Your task to perform on an android device: Go to CNN.com Image 0: 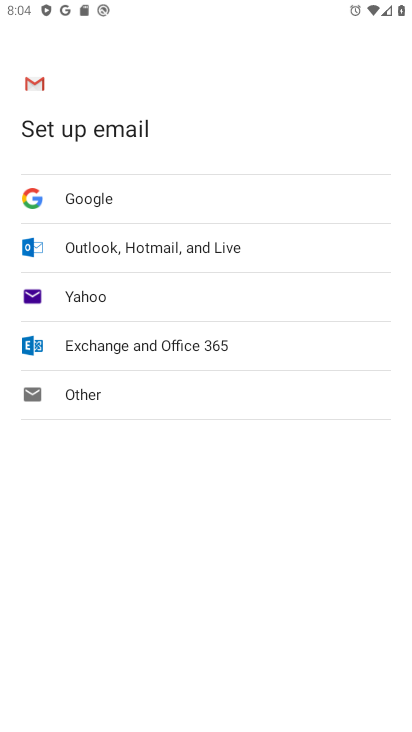
Step 0: press home button
Your task to perform on an android device: Go to CNN.com Image 1: 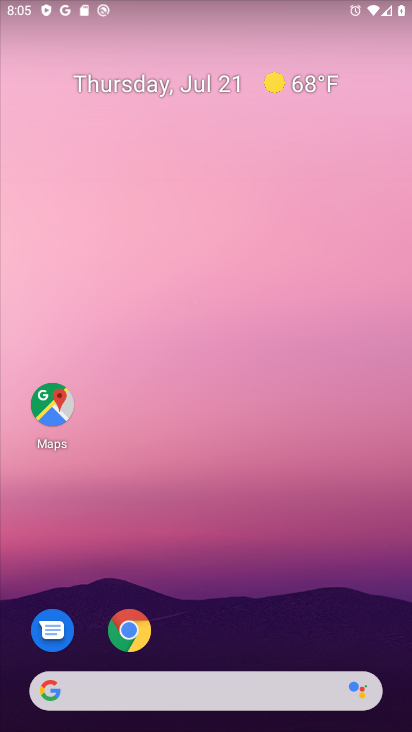
Step 1: drag from (310, 545) to (6, 205)
Your task to perform on an android device: Go to CNN.com Image 2: 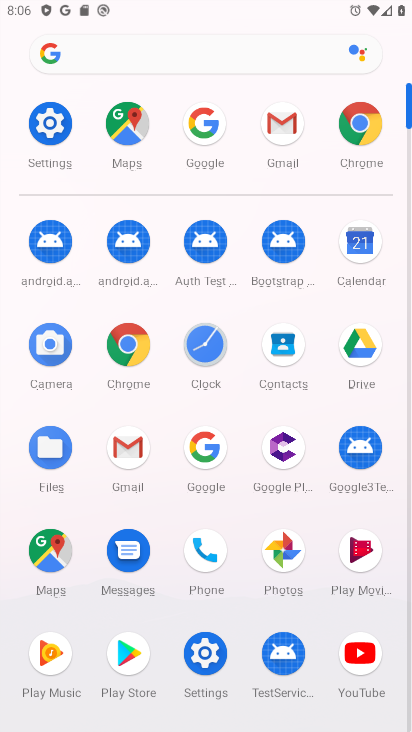
Step 2: click (367, 126)
Your task to perform on an android device: Go to CNN.com Image 3: 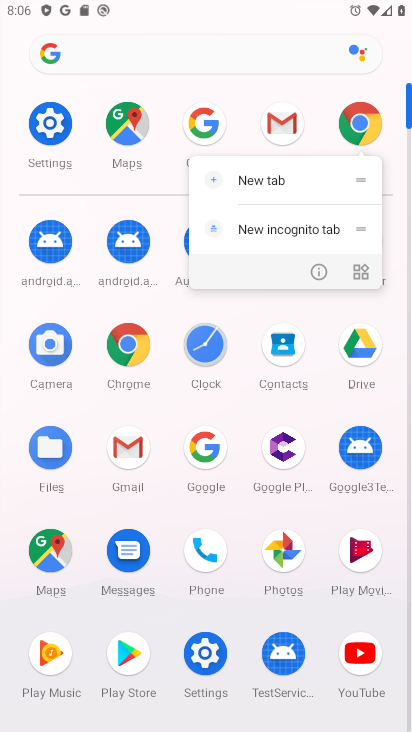
Step 3: click (359, 134)
Your task to perform on an android device: Go to CNN.com Image 4: 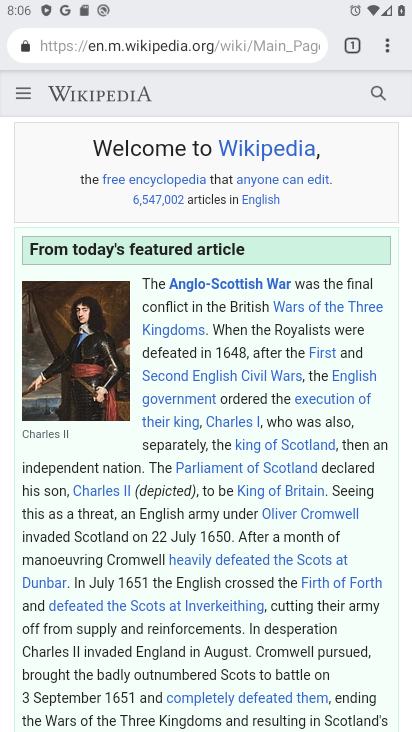
Step 4: click (117, 35)
Your task to perform on an android device: Go to CNN.com Image 5: 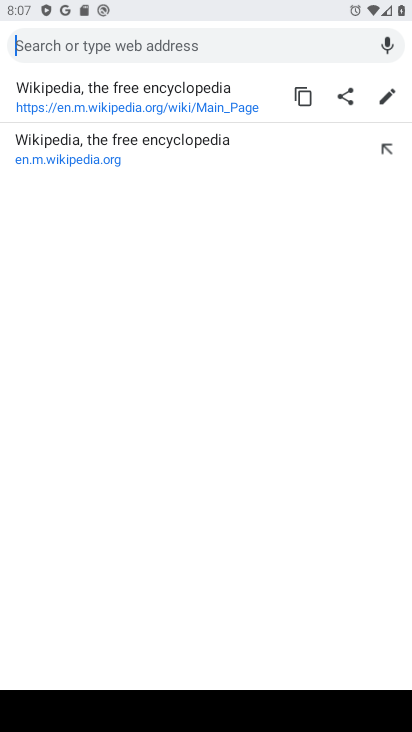
Step 5: type "CNN.com"
Your task to perform on an android device: Go to CNN.com Image 6: 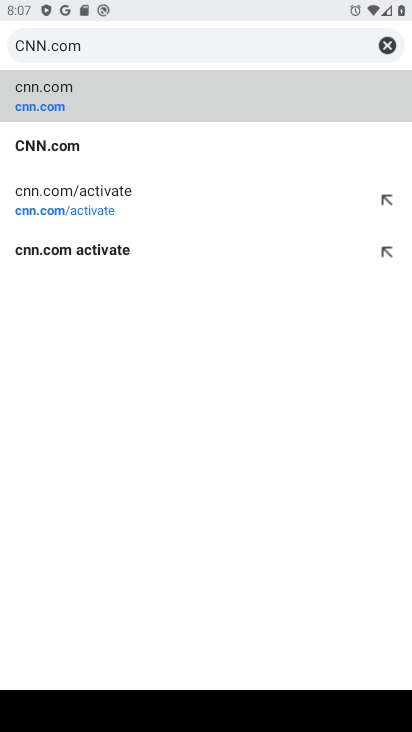
Step 6: click (60, 107)
Your task to perform on an android device: Go to CNN.com Image 7: 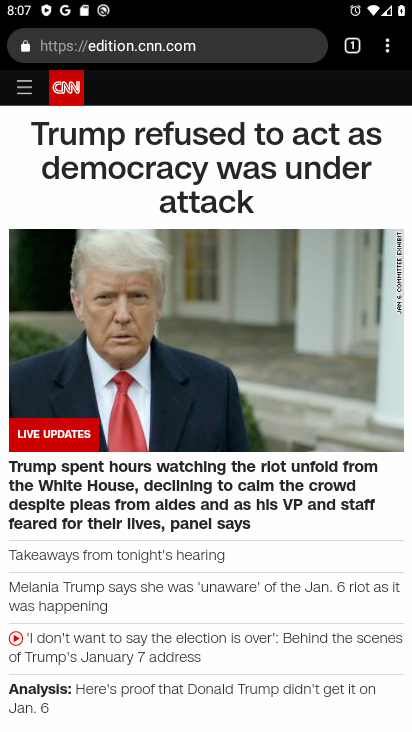
Step 7: task complete